Your task to perform on an android device: change text size in settings app Image 0: 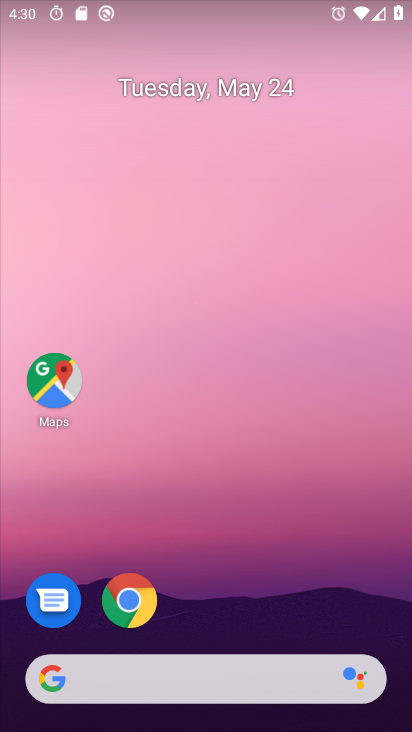
Step 0: drag from (227, 687) to (239, 99)
Your task to perform on an android device: change text size in settings app Image 1: 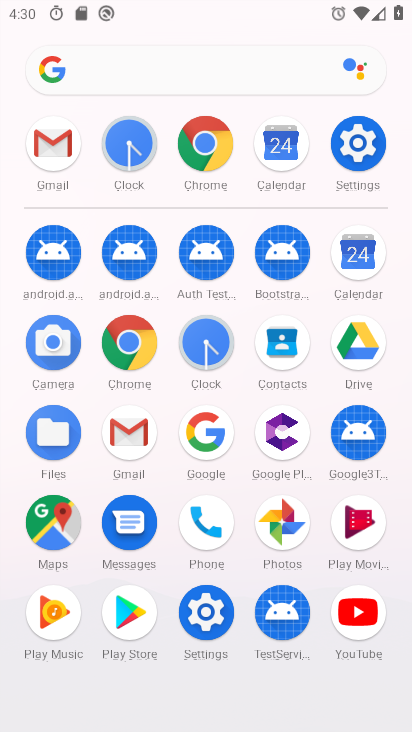
Step 1: click (351, 139)
Your task to perform on an android device: change text size in settings app Image 2: 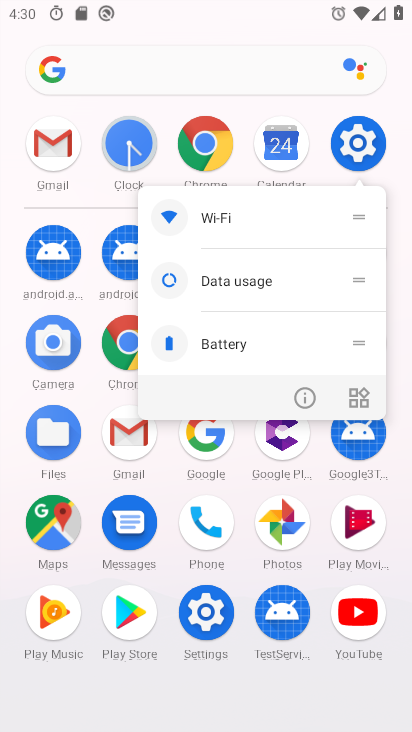
Step 2: click (353, 152)
Your task to perform on an android device: change text size in settings app Image 3: 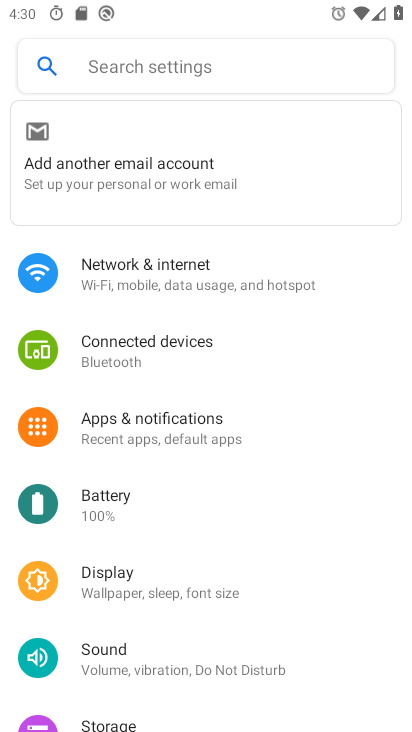
Step 3: drag from (278, 553) to (355, 103)
Your task to perform on an android device: change text size in settings app Image 4: 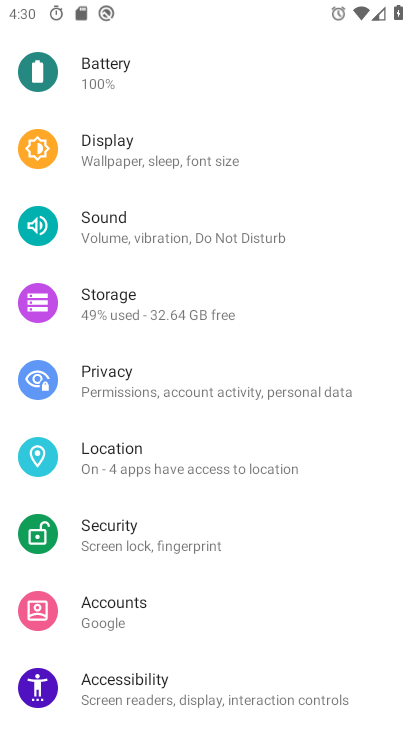
Step 4: drag from (275, 596) to (328, 110)
Your task to perform on an android device: change text size in settings app Image 5: 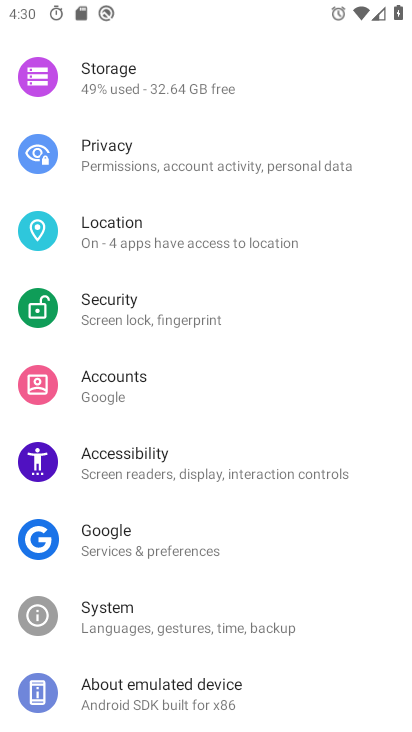
Step 5: click (150, 471)
Your task to perform on an android device: change text size in settings app Image 6: 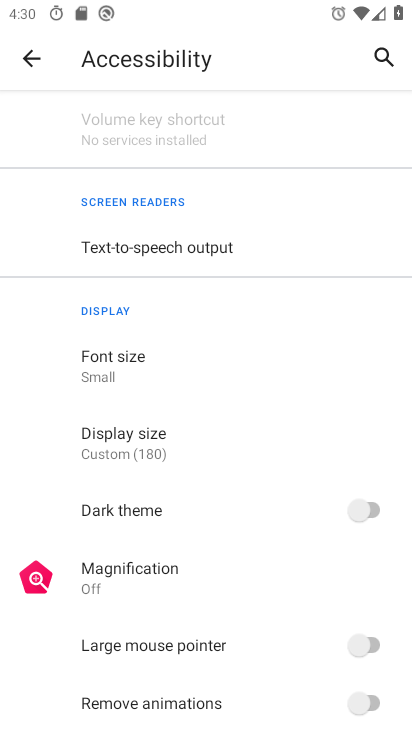
Step 6: click (186, 370)
Your task to perform on an android device: change text size in settings app Image 7: 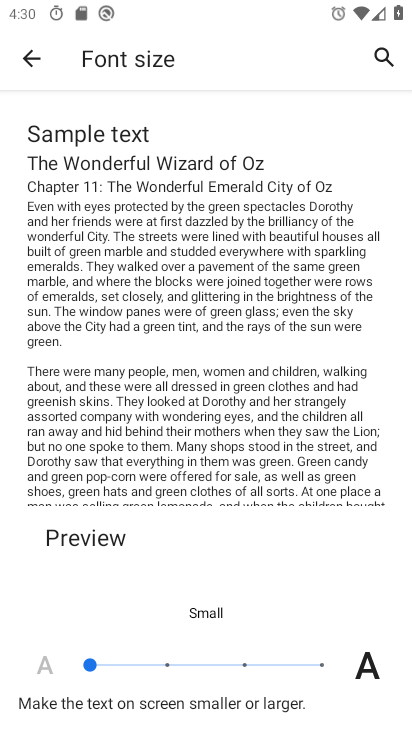
Step 7: click (165, 663)
Your task to perform on an android device: change text size in settings app Image 8: 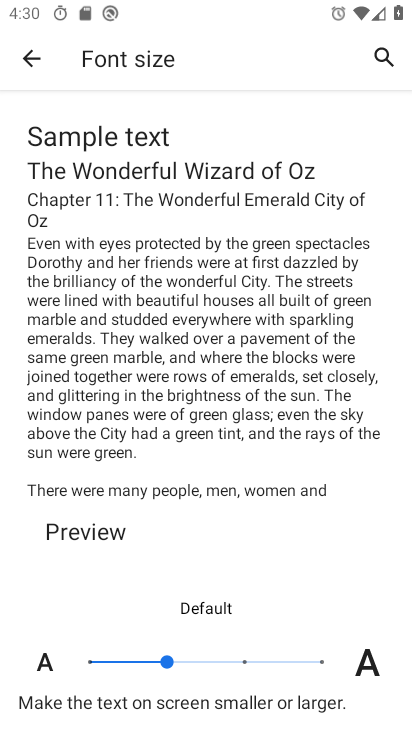
Step 8: task complete